Your task to perform on an android device: When is my next meeting? Image 0: 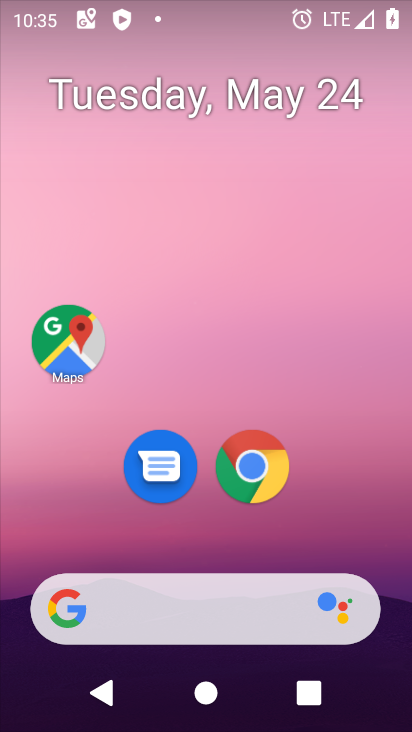
Step 0: drag from (395, 569) to (399, 299)
Your task to perform on an android device: When is my next meeting? Image 1: 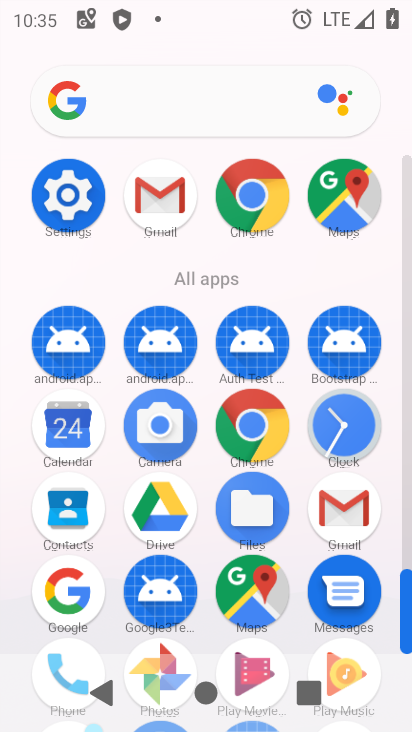
Step 1: click (57, 445)
Your task to perform on an android device: When is my next meeting? Image 2: 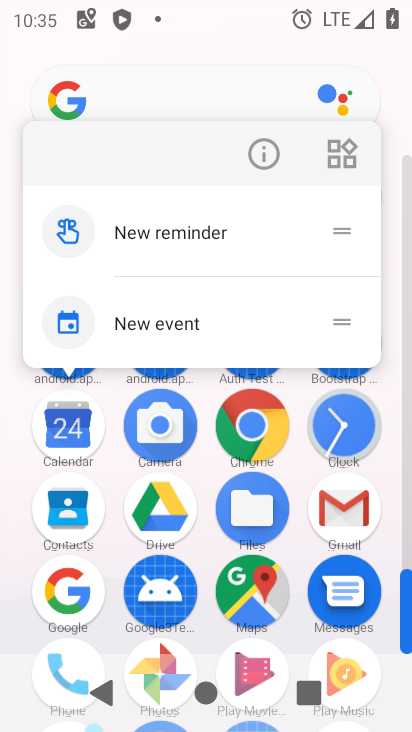
Step 2: click (57, 445)
Your task to perform on an android device: When is my next meeting? Image 3: 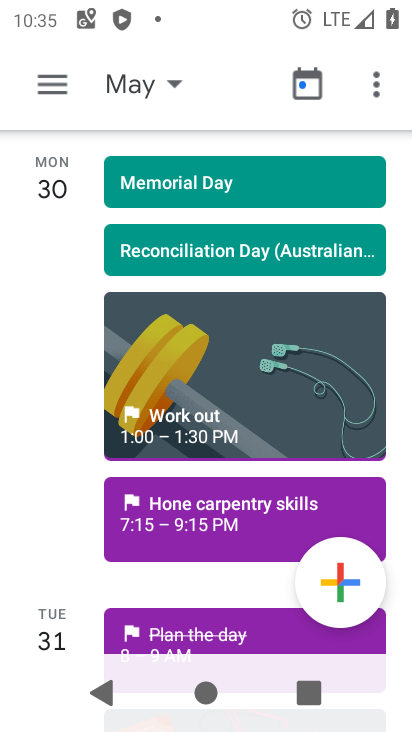
Step 3: click (180, 85)
Your task to perform on an android device: When is my next meeting? Image 4: 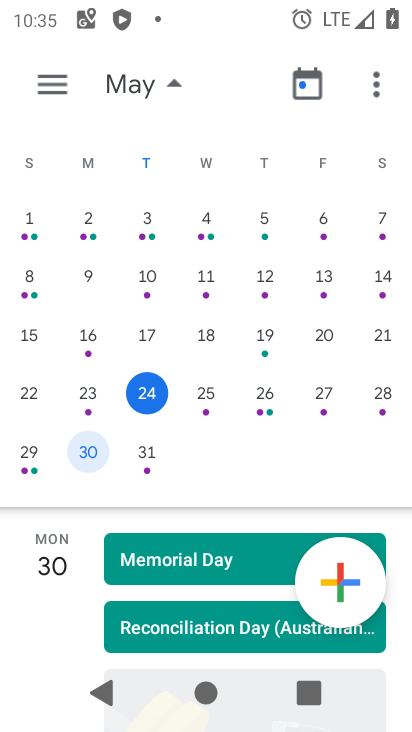
Step 4: click (243, 395)
Your task to perform on an android device: When is my next meeting? Image 5: 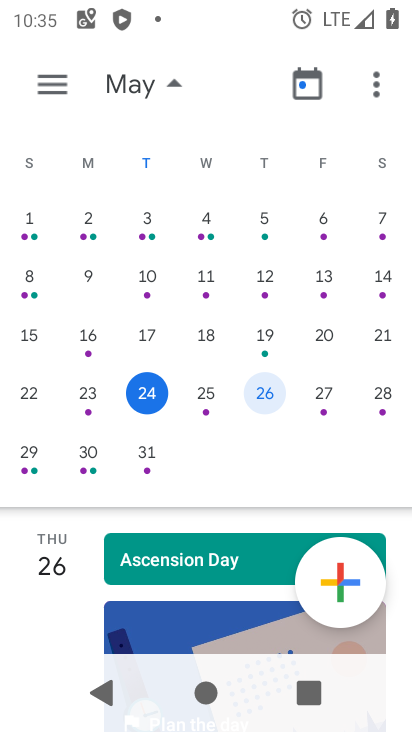
Step 5: drag from (211, 564) to (198, 348)
Your task to perform on an android device: When is my next meeting? Image 6: 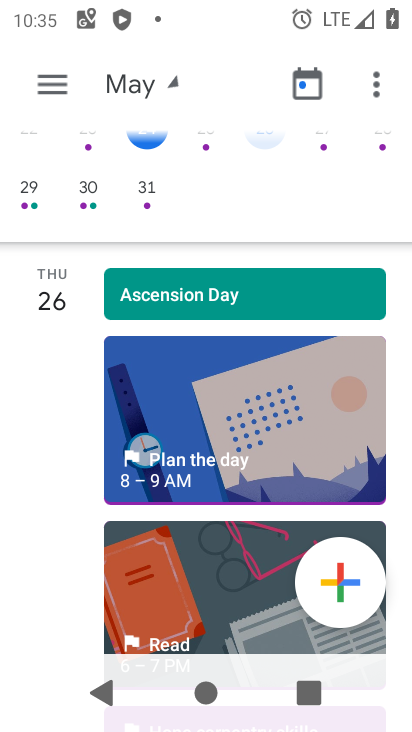
Step 6: click (191, 630)
Your task to perform on an android device: When is my next meeting? Image 7: 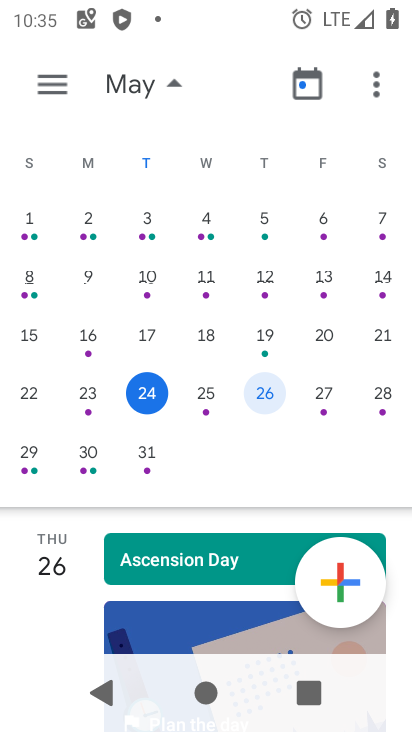
Step 7: click (191, 630)
Your task to perform on an android device: When is my next meeting? Image 8: 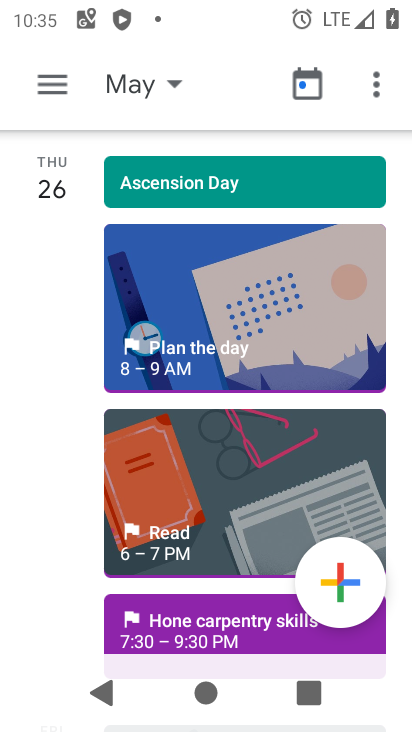
Step 8: click (235, 310)
Your task to perform on an android device: When is my next meeting? Image 9: 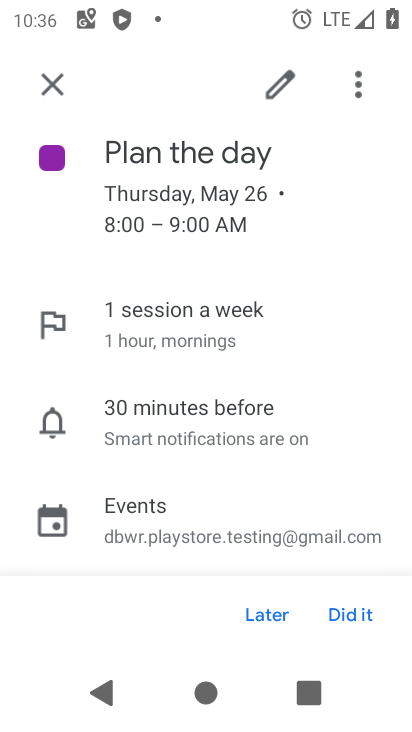
Step 9: task complete